Your task to perform on an android device: Do I have any events tomorrow? Image 0: 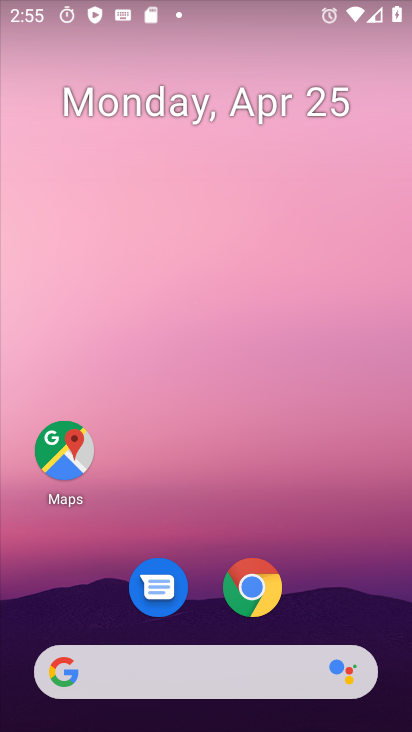
Step 0: drag from (324, 557) to (308, 128)
Your task to perform on an android device: Do I have any events tomorrow? Image 1: 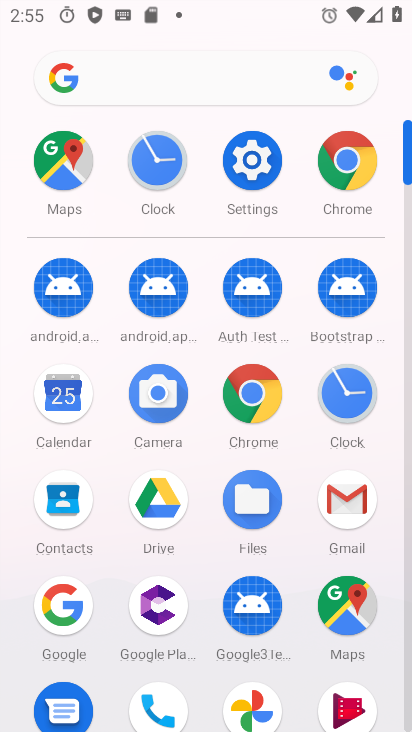
Step 1: click (64, 404)
Your task to perform on an android device: Do I have any events tomorrow? Image 2: 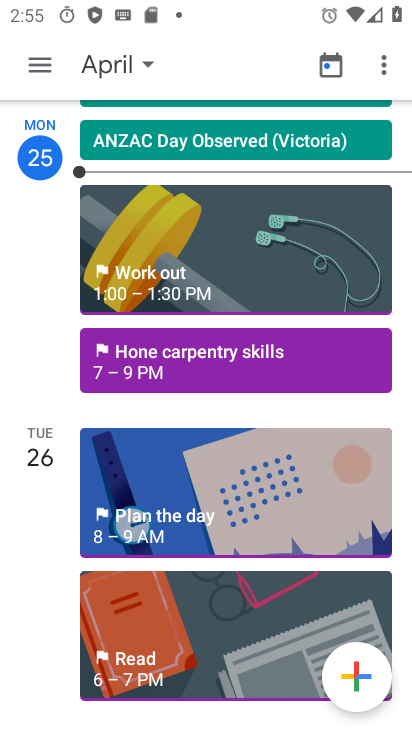
Step 2: task complete